Your task to perform on an android device: move a message to another label in the gmail app Image 0: 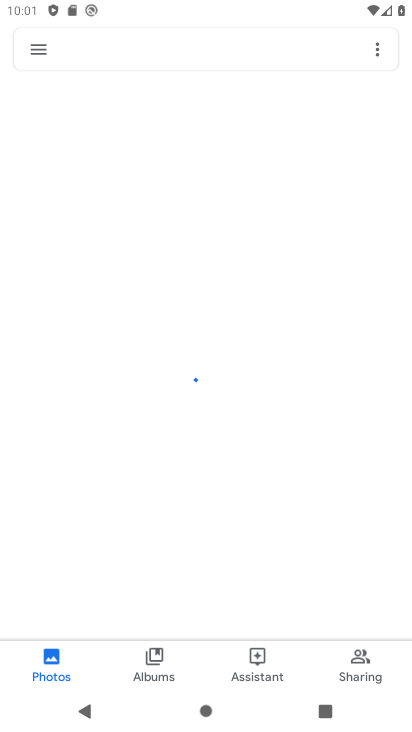
Step 0: press home button
Your task to perform on an android device: move a message to another label in the gmail app Image 1: 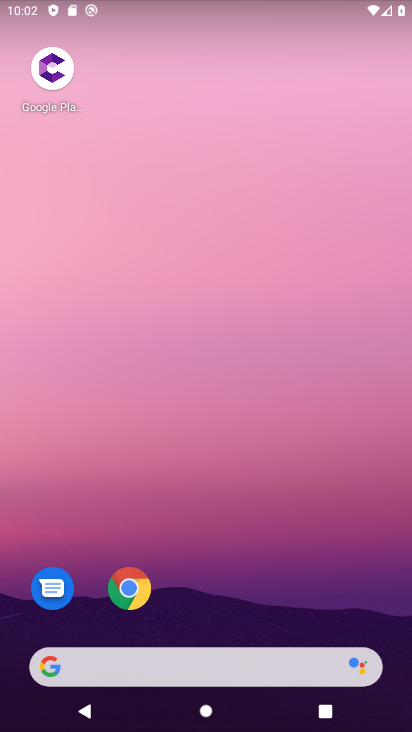
Step 1: drag from (239, 559) to (217, 71)
Your task to perform on an android device: move a message to another label in the gmail app Image 2: 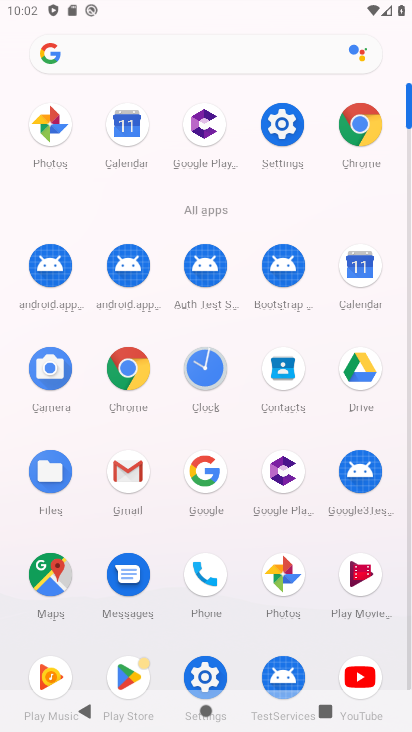
Step 2: click (127, 475)
Your task to perform on an android device: move a message to another label in the gmail app Image 3: 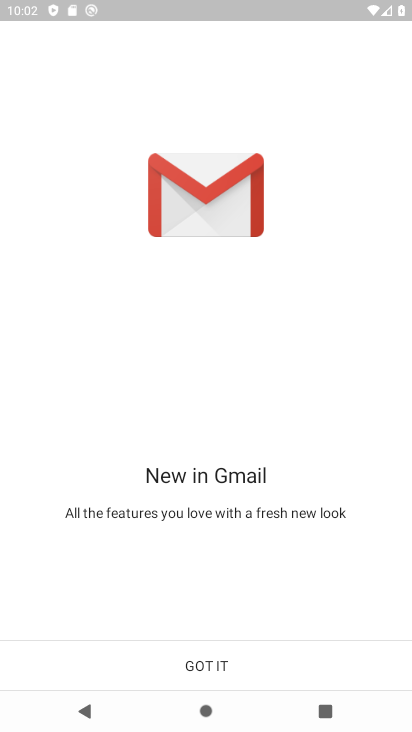
Step 3: click (205, 663)
Your task to perform on an android device: move a message to another label in the gmail app Image 4: 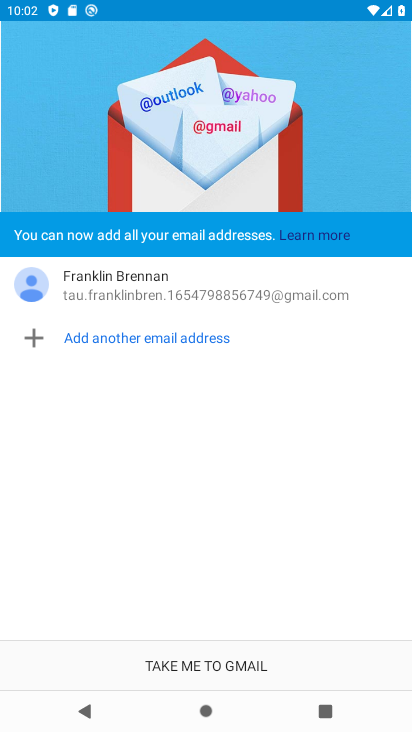
Step 4: click (205, 663)
Your task to perform on an android device: move a message to another label in the gmail app Image 5: 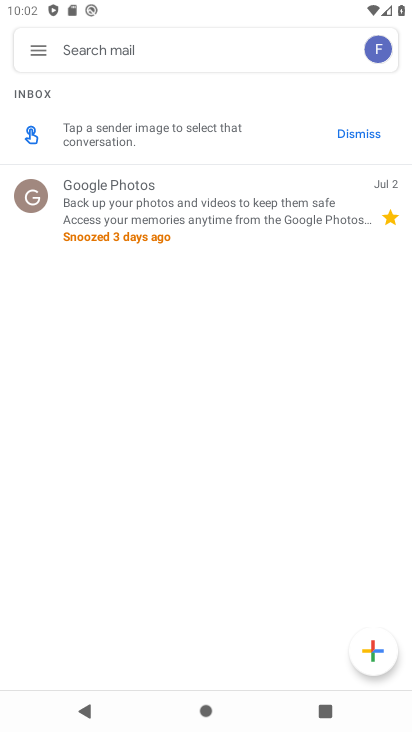
Step 5: click (126, 214)
Your task to perform on an android device: move a message to another label in the gmail app Image 6: 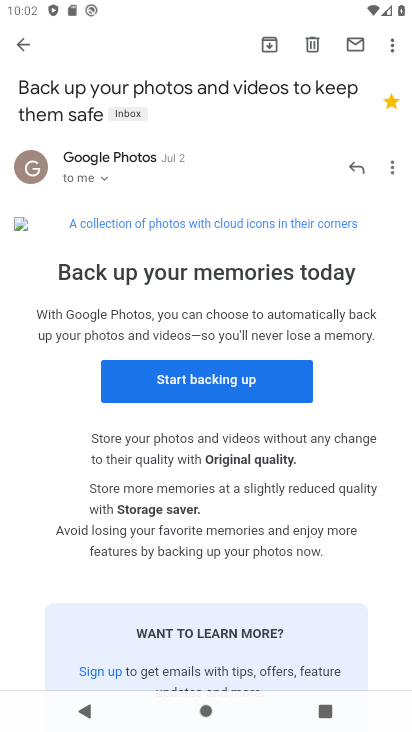
Step 6: click (396, 51)
Your task to perform on an android device: move a message to another label in the gmail app Image 7: 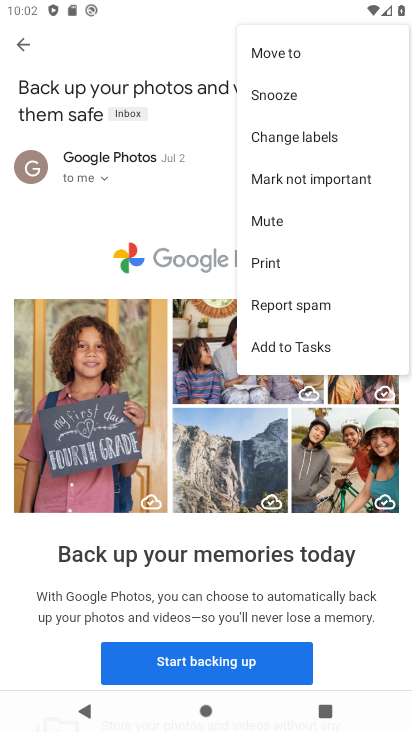
Step 7: click (293, 142)
Your task to perform on an android device: move a message to another label in the gmail app Image 8: 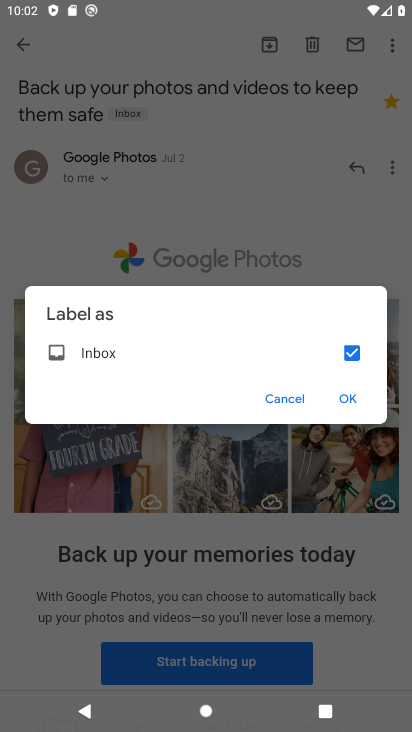
Step 8: click (351, 397)
Your task to perform on an android device: move a message to another label in the gmail app Image 9: 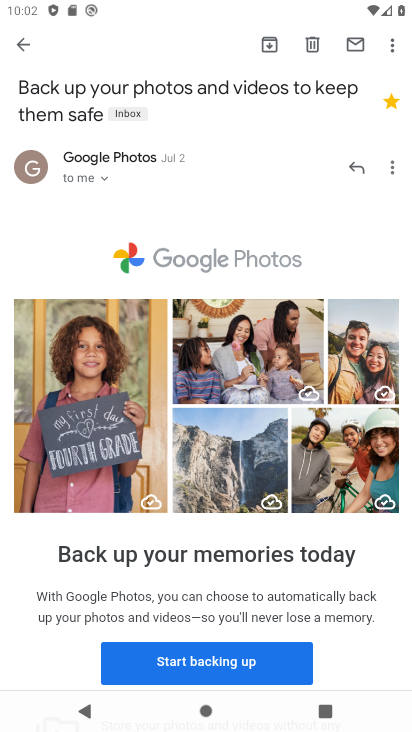
Step 9: task complete